Your task to perform on an android device: Open ESPN.com Image 0: 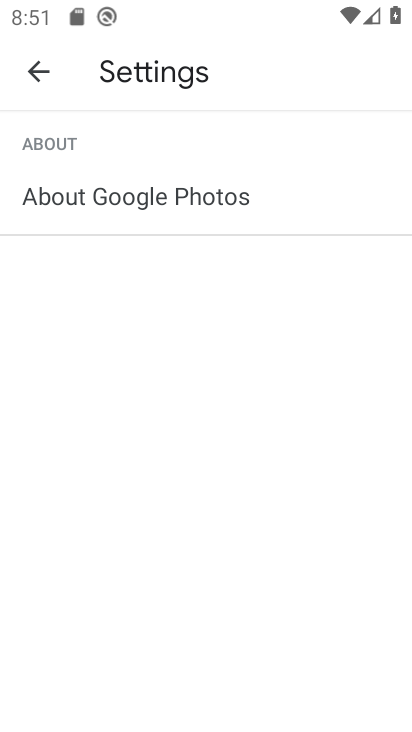
Step 0: press home button
Your task to perform on an android device: Open ESPN.com Image 1: 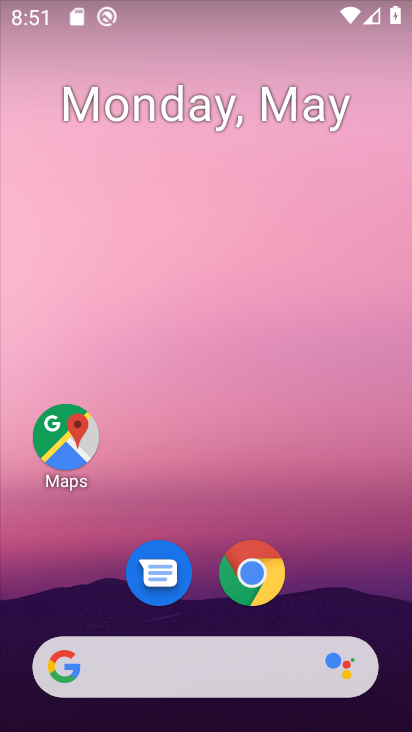
Step 1: click (248, 581)
Your task to perform on an android device: Open ESPN.com Image 2: 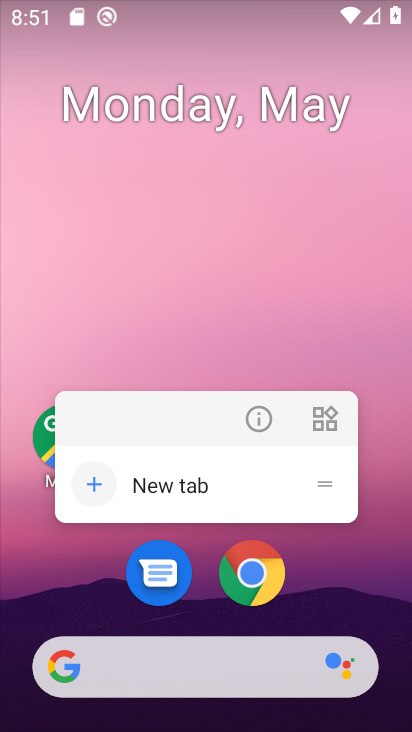
Step 2: click (263, 568)
Your task to perform on an android device: Open ESPN.com Image 3: 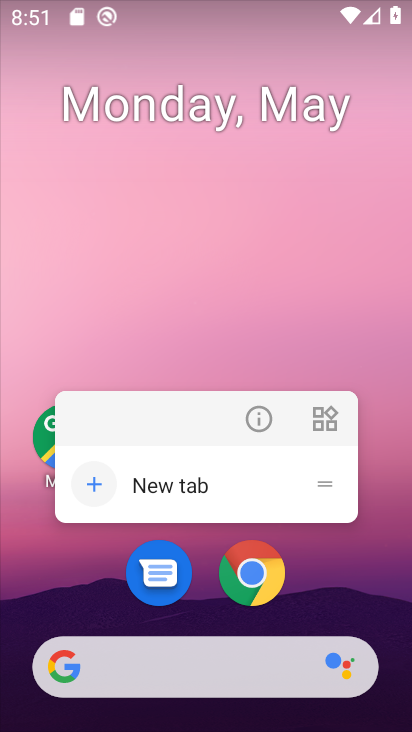
Step 3: click (260, 585)
Your task to perform on an android device: Open ESPN.com Image 4: 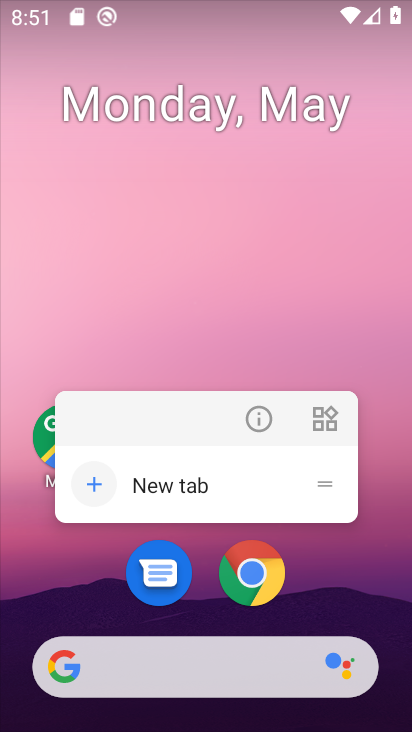
Step 4: click (269, 591)
Your task to perform on an android device: Open ESPN.com Image 5: 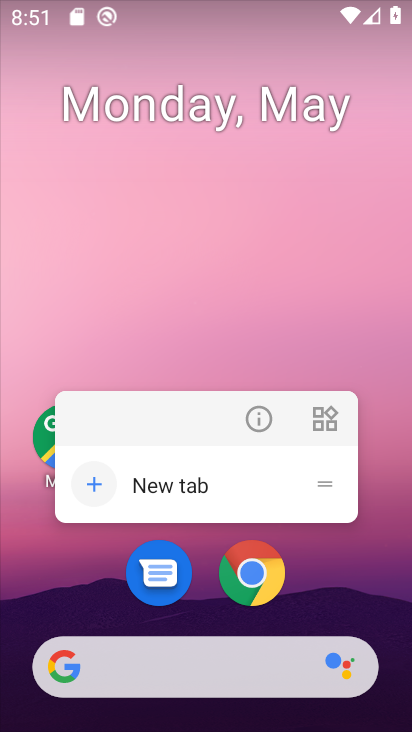
Step 5: click (266, 587)
Your task to perform on an android device: Open ESPN.com Image 6: 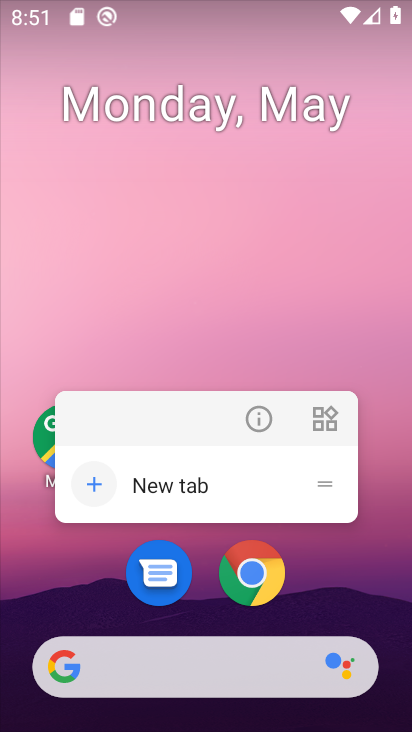
Step 6: click (269, 574)
Your task to perform on an android device: Open ESPN.com Image 7: 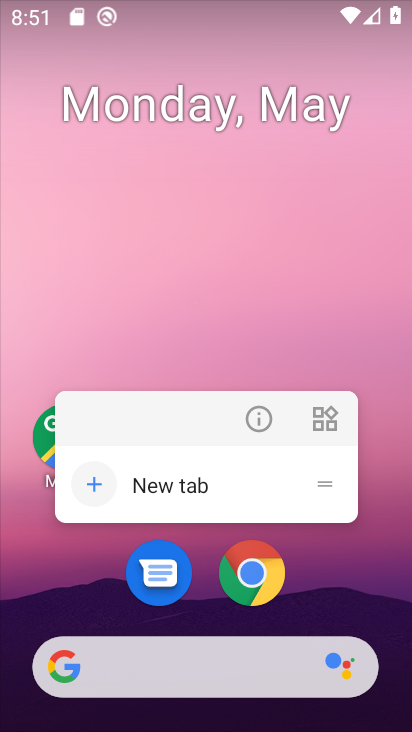
Step 7: click (259, 584)
Your task to perform on an android device: Open ESPN.com Image 8: 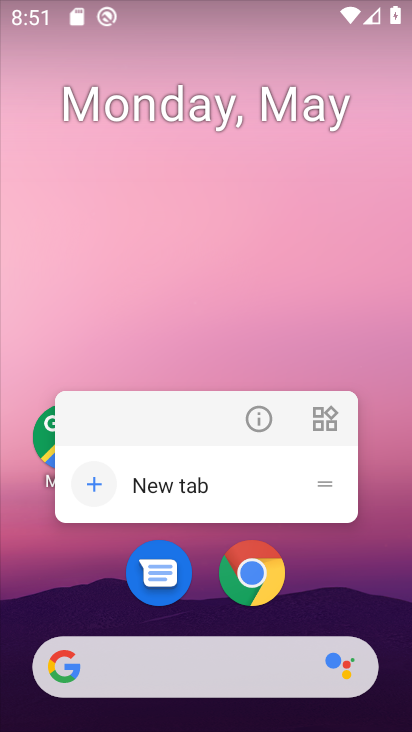
Step 8: click (250, 565)
Your task to perform on an android device: Open ESPN.com Image 9: 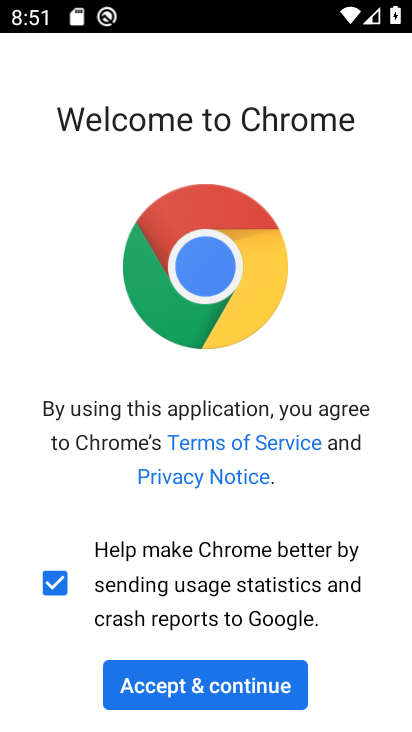
Step 9: click (268, 591)
Your task to perform on an android device: Open ESPN.com Image 10: 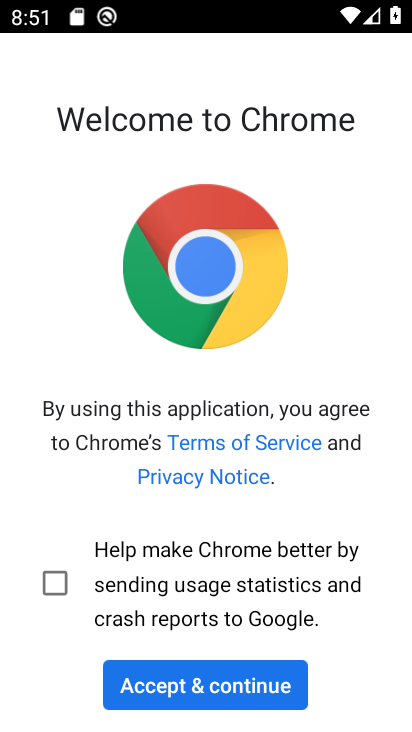
Step 10: click (260, 692)
Your task to perform on an android device: Open ESPN.com Image 11: 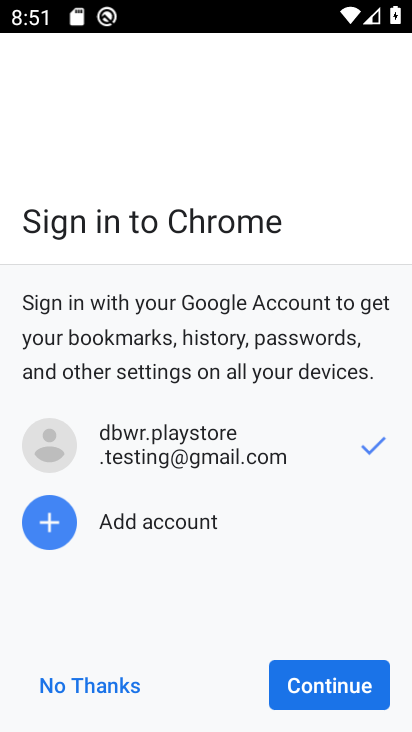
Step 11: click (310, 693)
Your task to perform on an android device: Open ESPN.com Image 12: 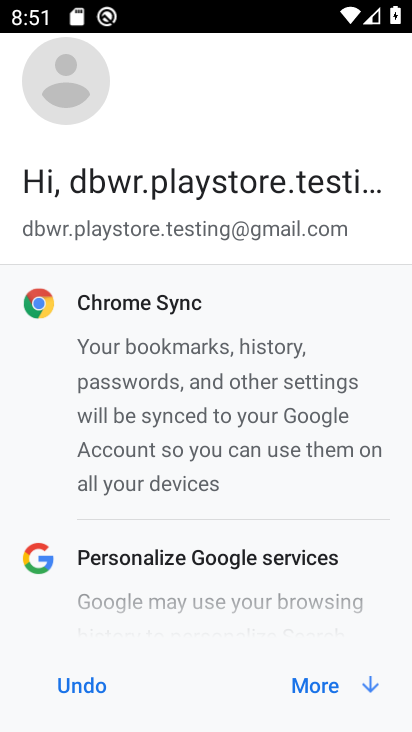
Step 12: click (311, 693)
Your task to perform on an android device: Open ESPN.com Image 13: 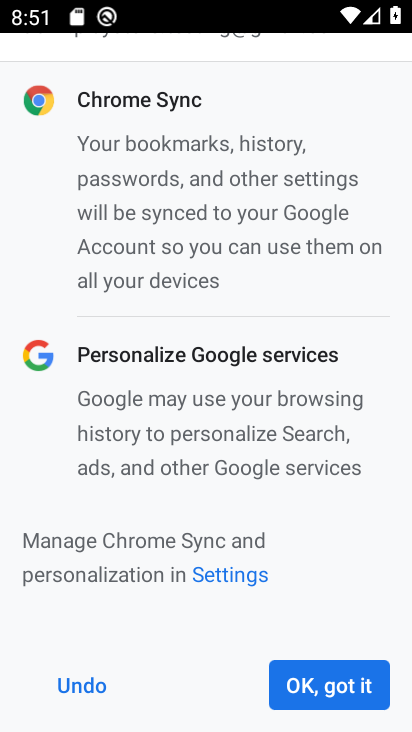
Step 13: click (311, 693)
Your task to perform on an android device: Open ESPN.com Image 14: 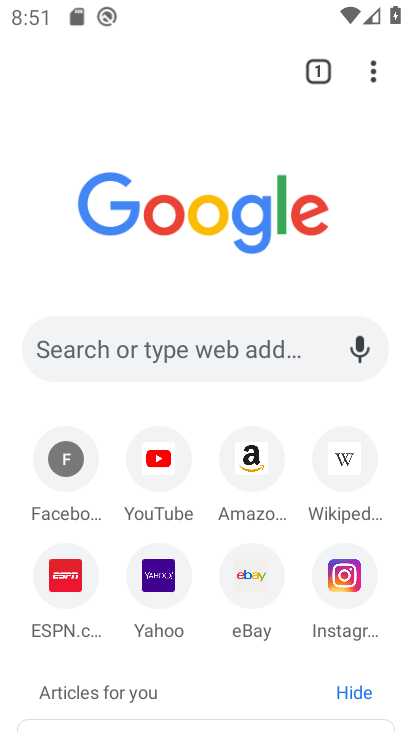
Step 14: click (69, 613)
Your task to perform on an android device: Open ESPN.com Image 15: 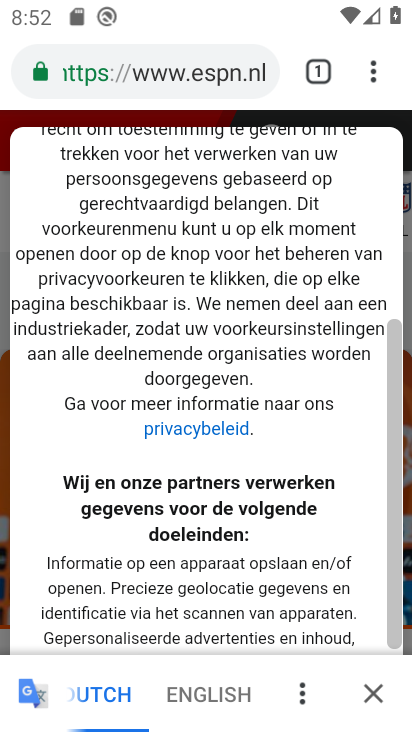
Step 15: click (380, 690)
Your task to perform on an android device: Open ESPN.com Image 16: 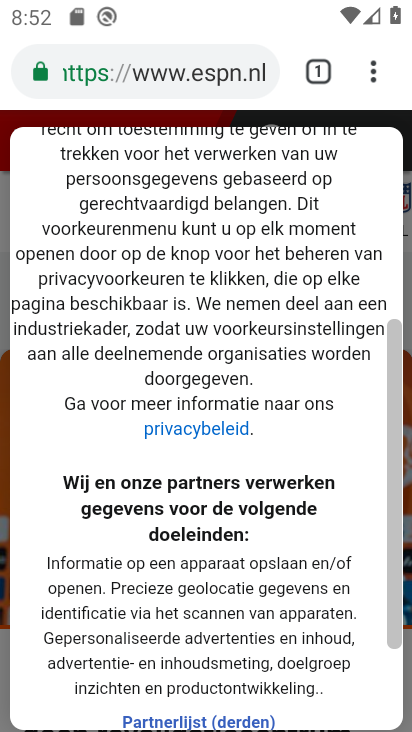
Step 16: drag from (261, 626) to (345, 234)
Your task to perform on an android device: Open ESPN.com Image 17: 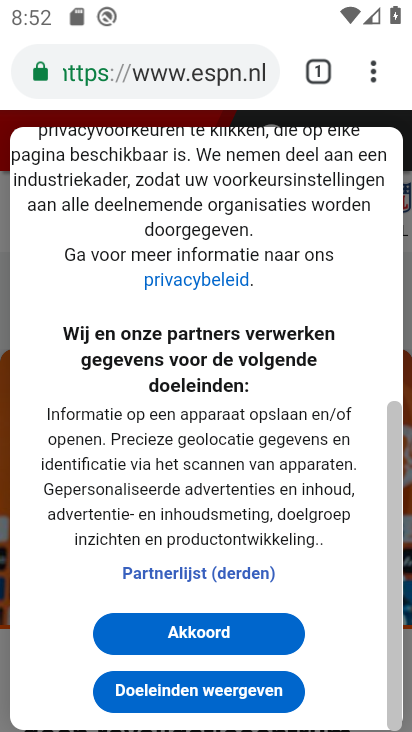
Step 17: click (224, 637)
Your task to perform on an android device: Open ESPN.com Image 18: 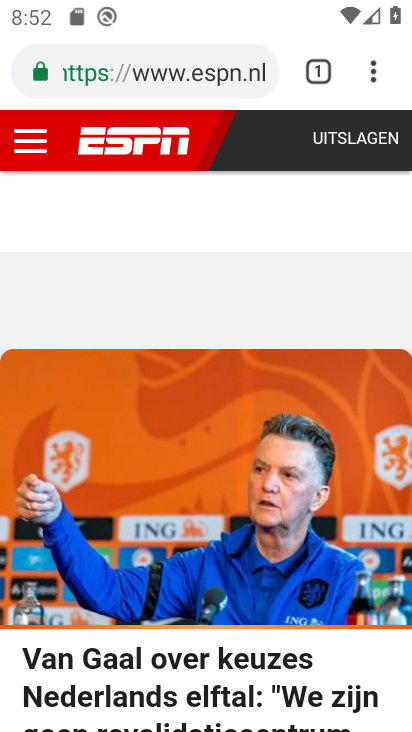
Step 18: task complete